Your task to perform on an android device: Turn off the flashlight Image 0: 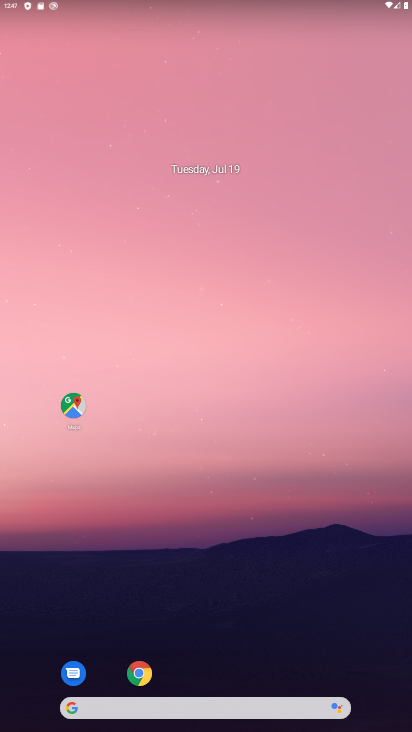
Step 0: drag from (225, 673) to (397, 615)
Your task to perform on an android device: Turn off the flashlight Image 1: 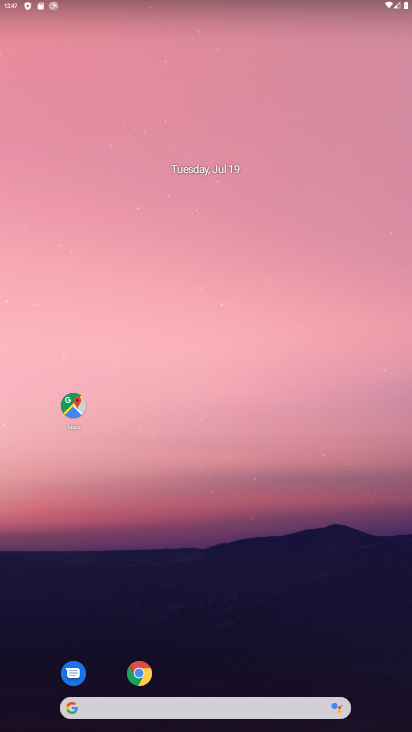
Step 1: drag from (212, 695) to (264, 54)
Your task to perform on an android device: Turn off the flashlight Image 2: 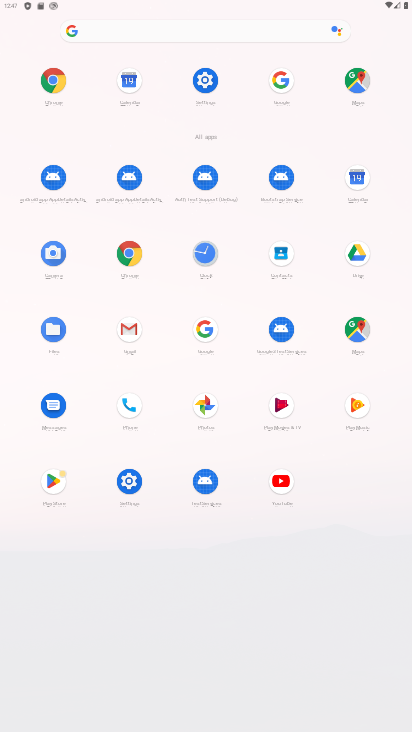
Step 2: click (127, 484)
Your task to perform on an android device: Turn off the flashlight Image 3: 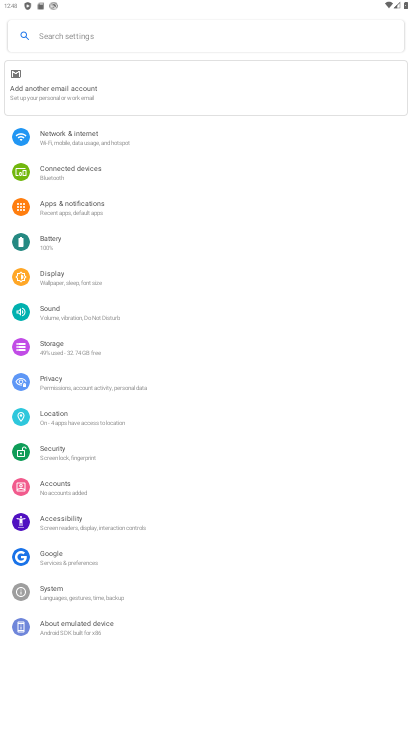
Step 3: task complete